Your task to perform on an android device: turn off improve location accuracy Image 0: 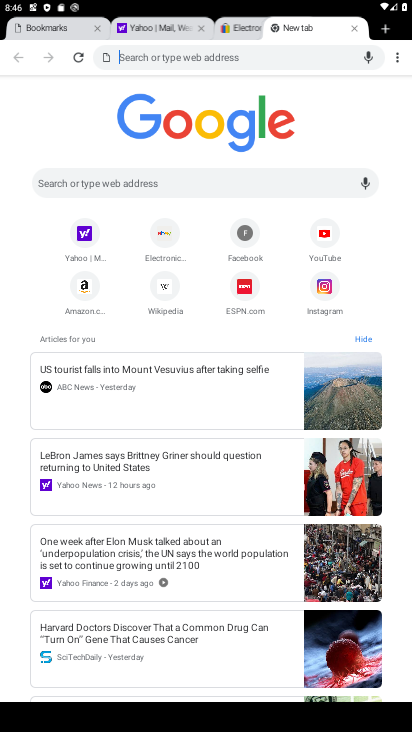
Step 0: press home button
Your task to perform on an android device: turn off improve location accuracy Image 1: 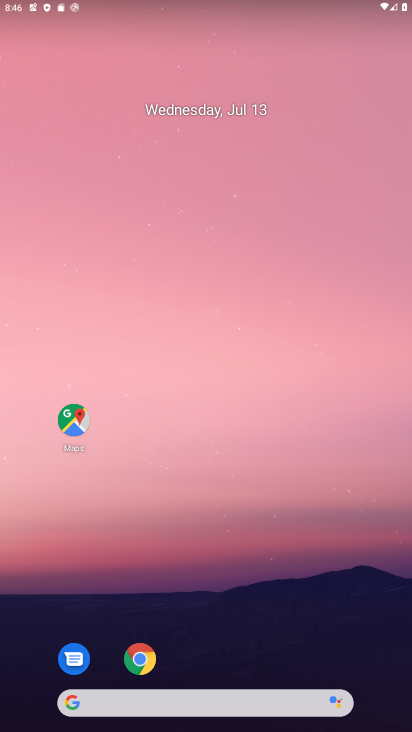
Step 1: drag from (220, 632) to (292, 88)
Your task to perform on an android device: turn off improve location accuracy Image 2: 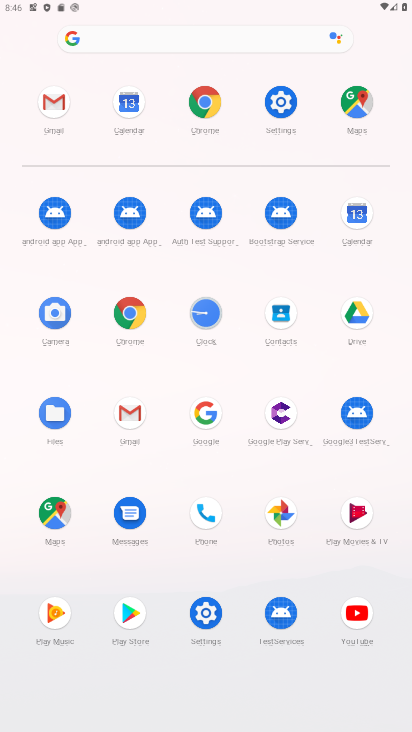
Step 2: click (286, 97)
Your task to perform on an android device: turn off improve location accuracy Image 3: 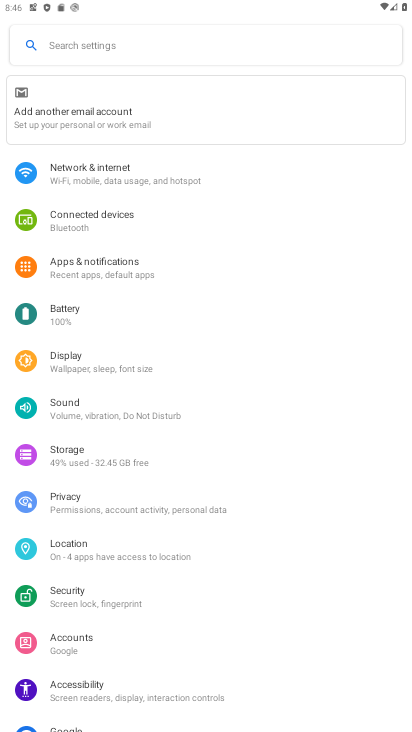
Step 3: click (147, 552)
Your task to perform on an android device: turn off improve location accuracy Image 4: 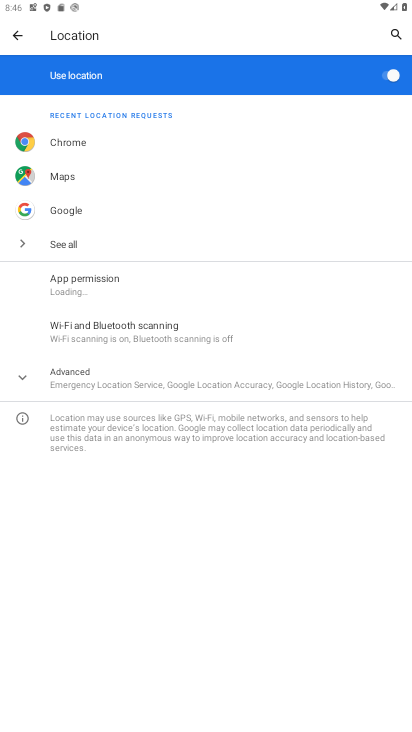
Step 4: click (142, 373)
Your task to perform on an android device: turn off improve location accuracy Image 5: 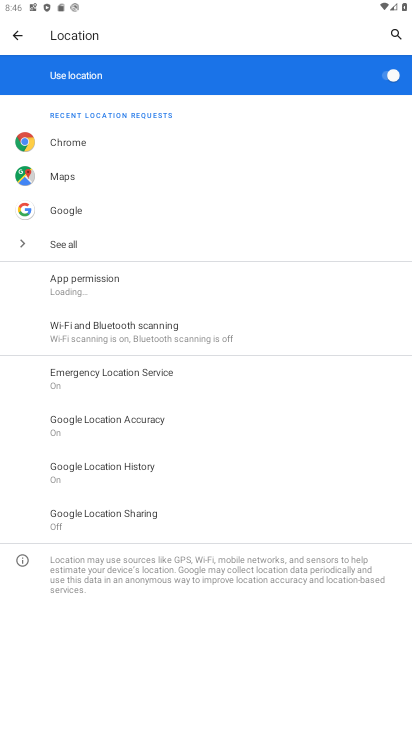
Step 5: click (184, 424)
Your task to perform on an android device: turn off improve location accuracy Image 6: 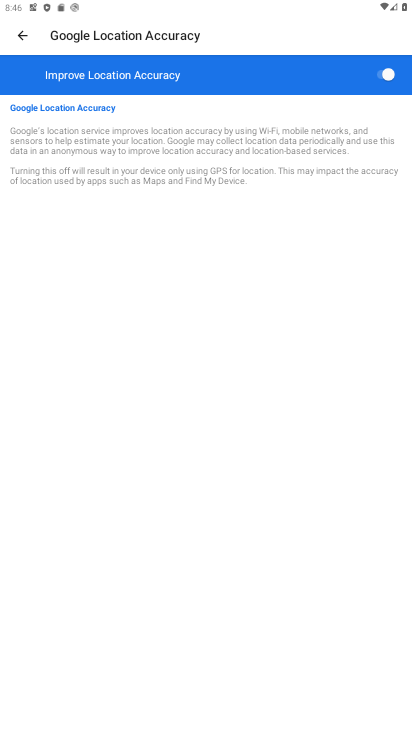
Step 6: click (375, 72)
Your task to perform on an android device: turn off improve location accuracy Image 7: 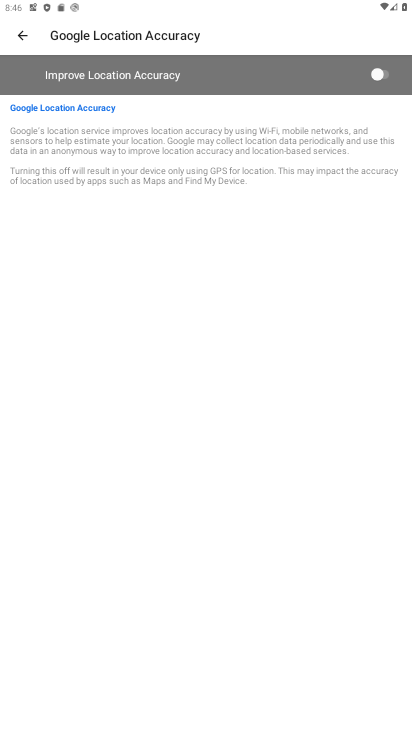
Step 7: task complete